Your task to perform on an android device: What's the weather today? Image 0: 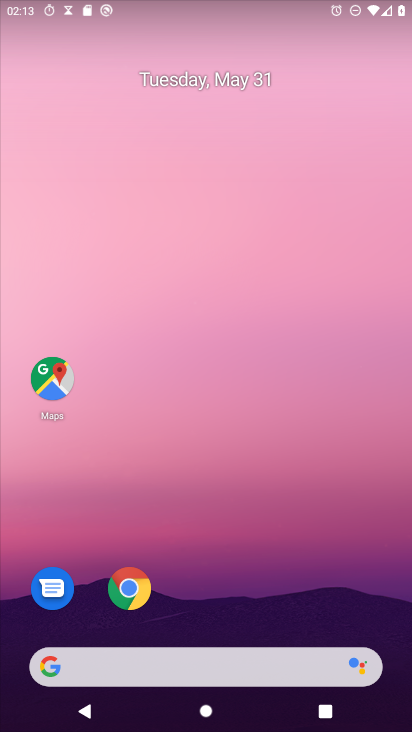
Step 0: drag from (307, 597) to (308, 45)
Your task to perform on an android device: What's the weather today? Image 1: 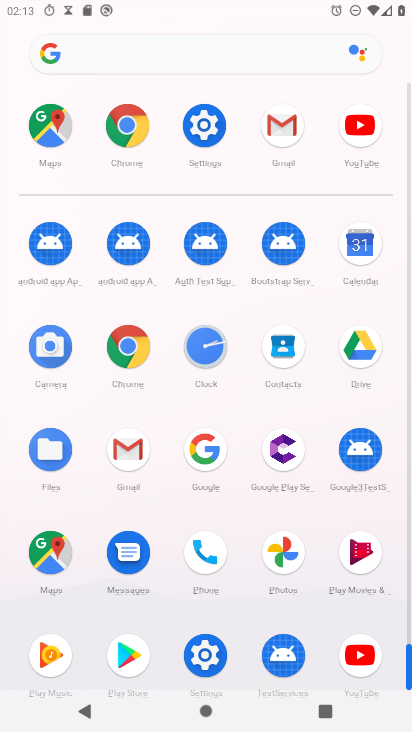
Step 1: press home button
Your task to perform on an android device: What's the weather today? Image 2: 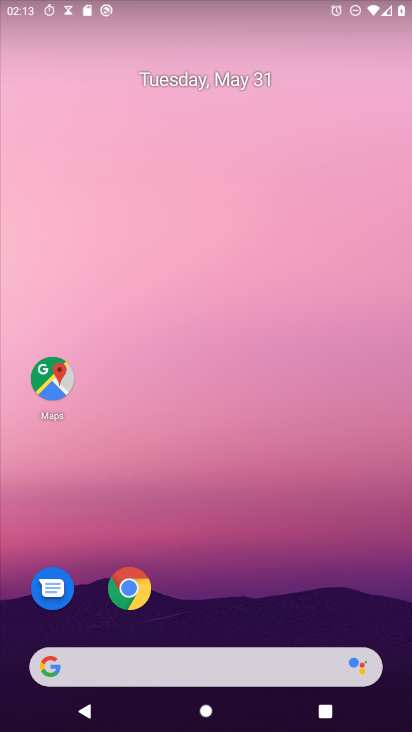
Step 2: drag from (67, 244) to (400, 224)
Your task to perform on an android device: What's the weather today? Image 3: 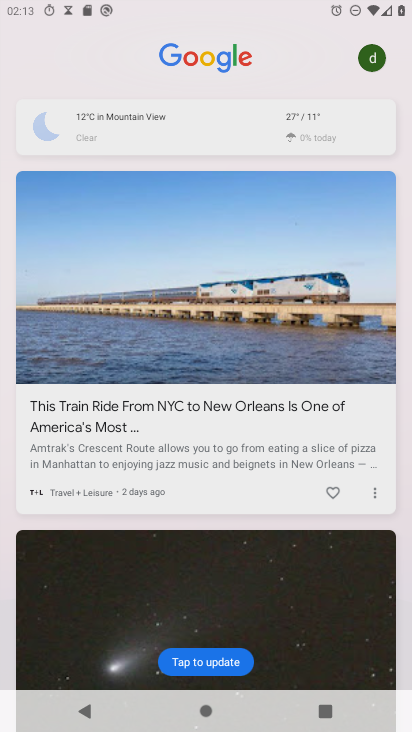
Step 3: click (198, 136)
Your task to perform on an android device: What's the weather today? Image 4: 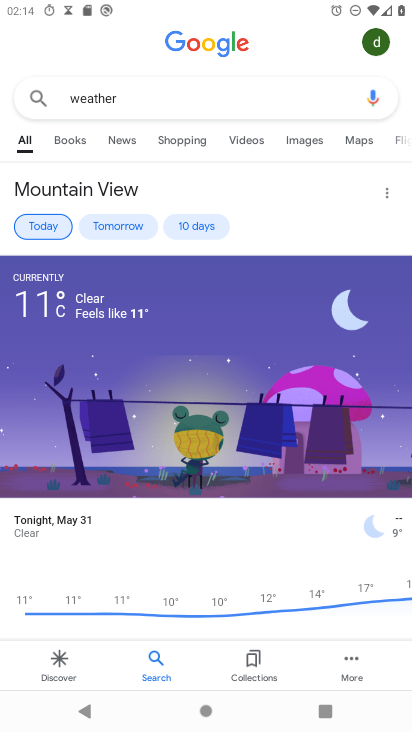
Step 4: task complete